Your task to perform on an android device: find which apps use the phone's location Image 0: 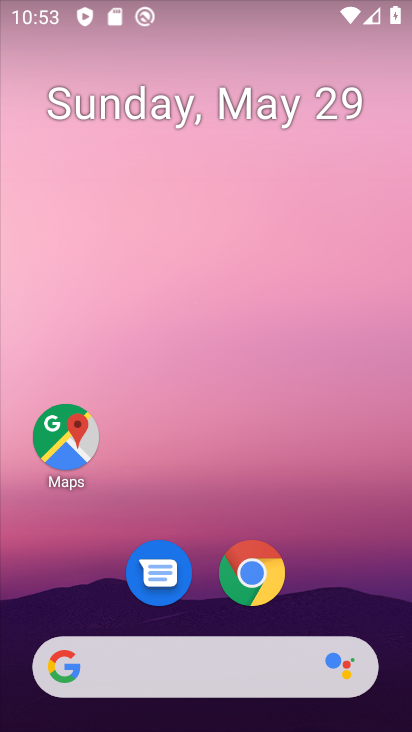
Step 0: drag from (328, 374) to (292, 124)
Your task to perform on an android device: find which apps use the phone's location Image 1: 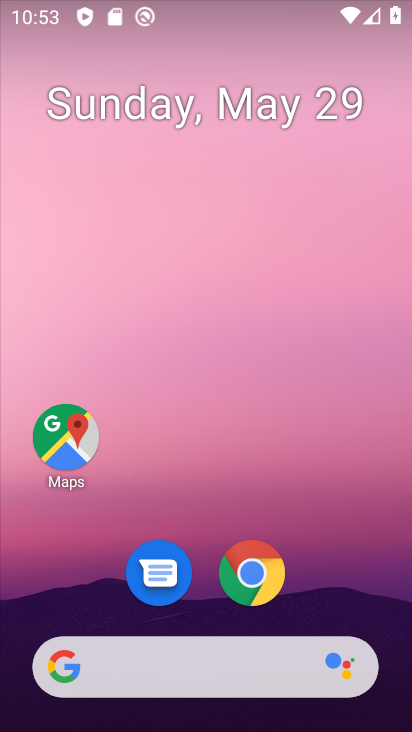
Step 1: drag from (363, 584) to (296, 106)
Your task to perform on an android device: find which apps use the phone's location Image 2: 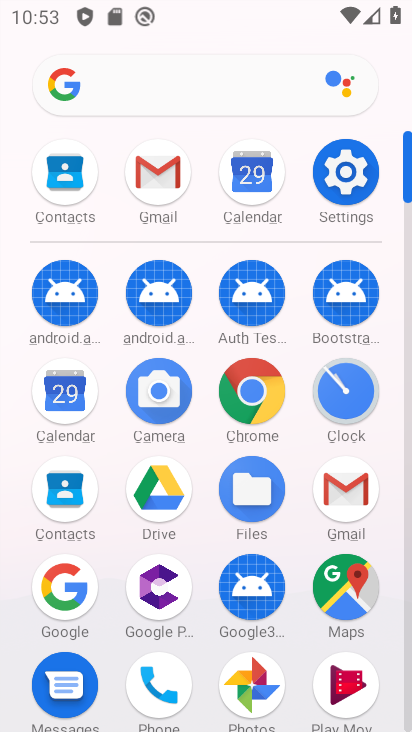
Step 2: click (349, 172)
Your task to perform on an android device: find which apps use the phone's location Image 3: 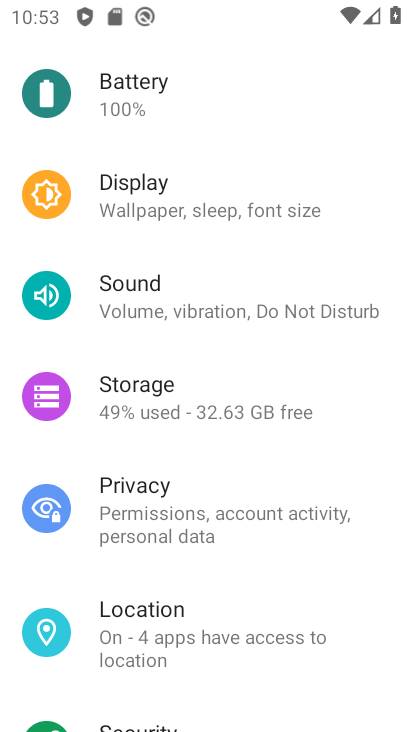
Step 3: click (314, 628)
Your task to perform on an android device: find which apps use the phone's location Image 4: 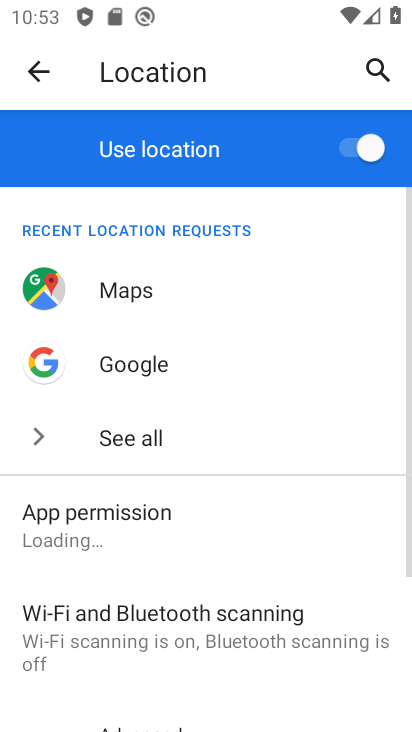
Step 4: click (172, 527)
Your task to perform on an android device: find which apps use the phone's location Image 5: 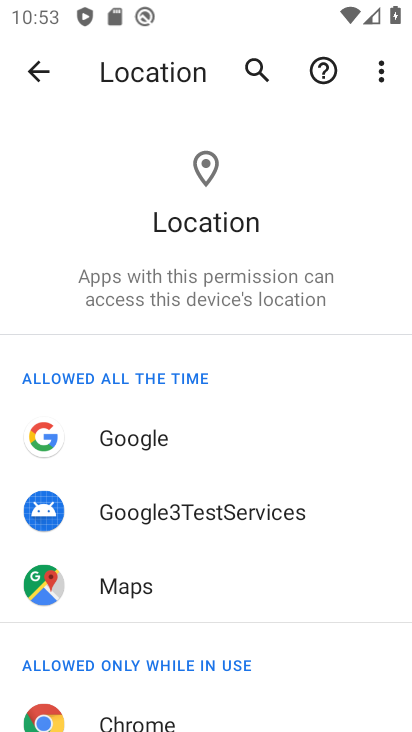
Step 5: task complete